Your task to perform on an android device: toggle priority inbox in the gmail app Image 0: 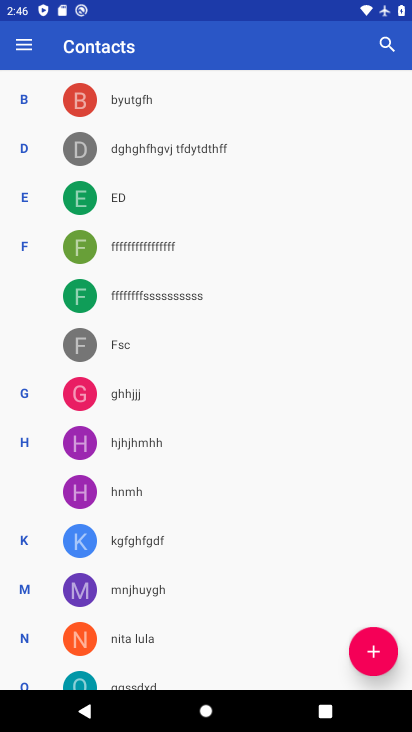
Step 0: press home button
Your task to perform on an android device: toggle priority inbox in the gmail app Image 1: 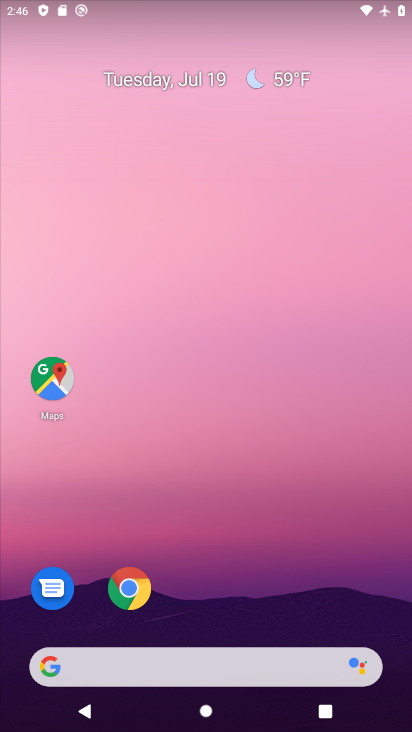
Step 1: drag from (226, 634) to (253, 180)
Your task to perform on an android device: toggle priority inbox in the gmail app Image 2: 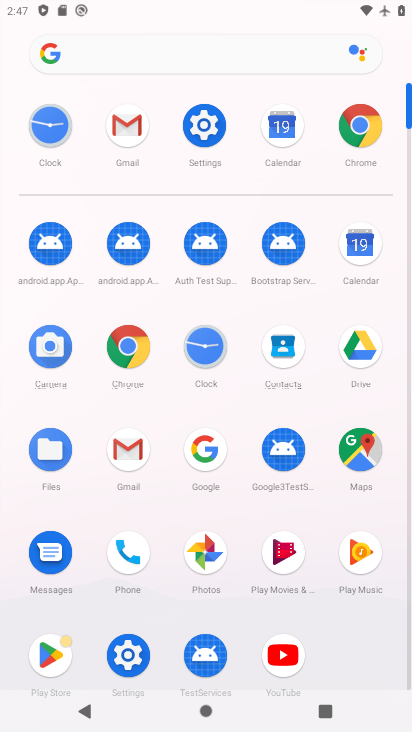
Step 2: click (133, 135)
Your task to perform on an android device: toggle priority inbox in the gmail app Image 3: 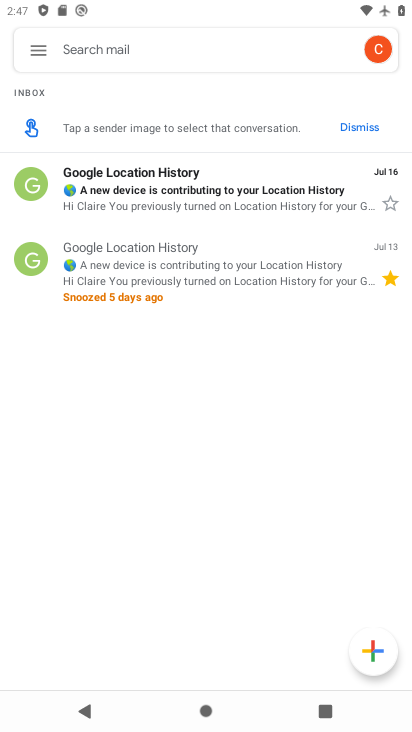
Step 3: drag from (31, 58) to (102, 368)
Your task to perform on an android device: toggle priority inbox in the gmail app Image 4: 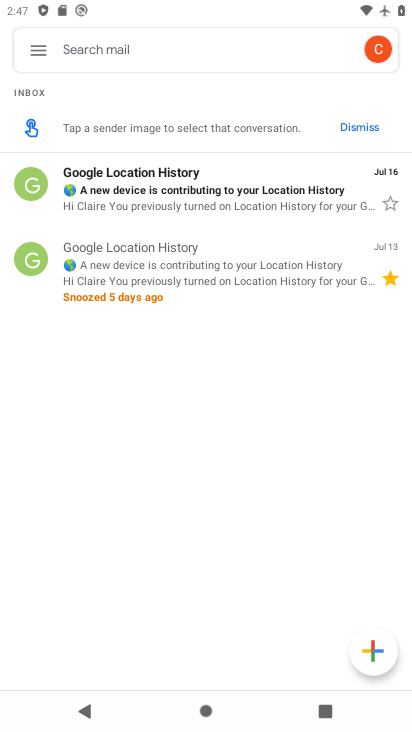
Step 4: click (38, 52)
Your task to perform on an android device: toggle priority inbox in the gmail app Image 5: 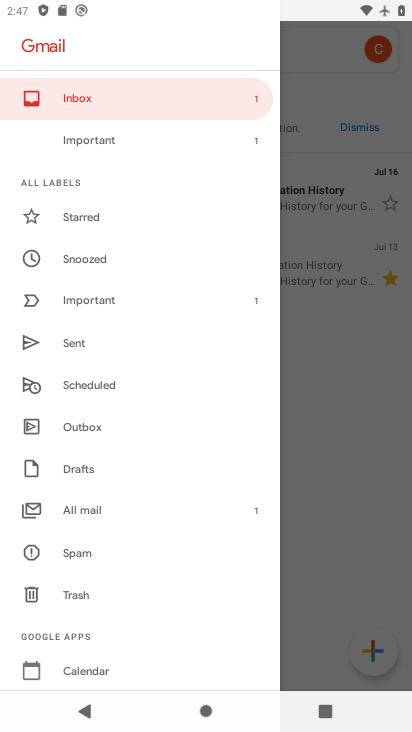
Step 5: drag from (126, 625) to (89, 307)
Your task to perform on an android device: toggle priority inbox in the gmail app Image 6: 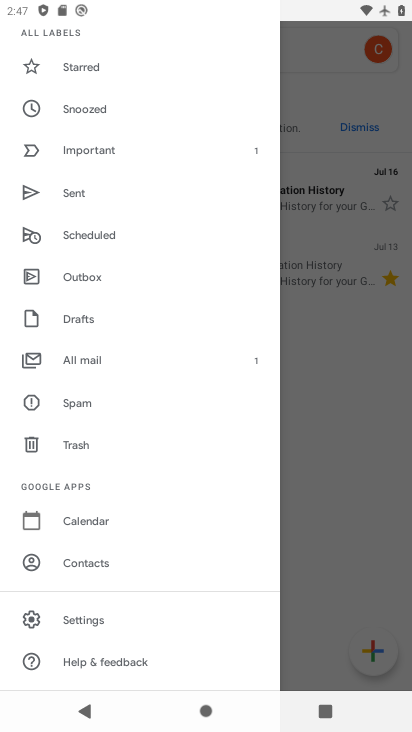
Step 6: click (83, 618)
Your task to perform on an android device: toggle priority inbox in the gmail app Image 7: 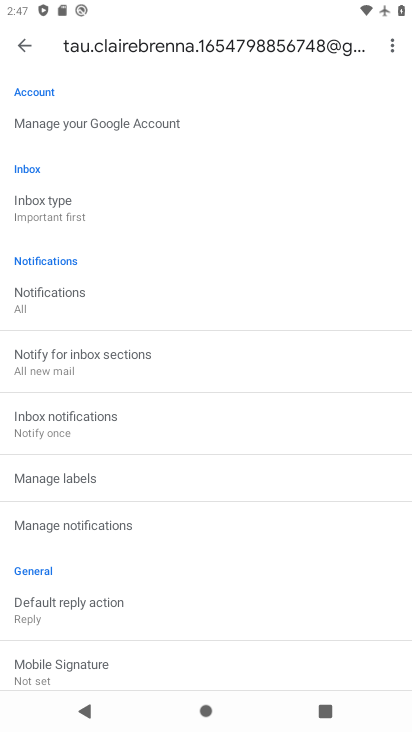
Step 7: click (45, 213)
Your task to perform on an android device: toggle priority inbox in the gmail app Image 8: 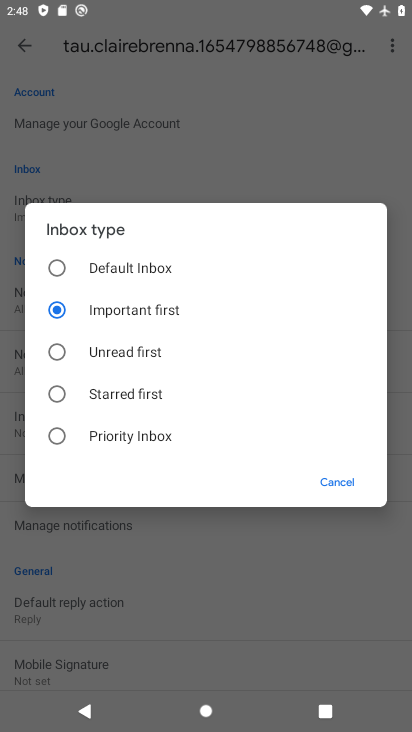
Step 8: click (63, 435)
Your task to perform on an android device: toggle priority inbox in the gmail app Image 9: 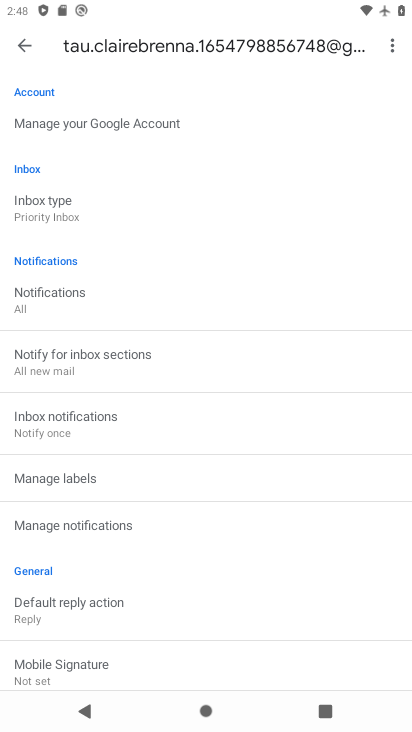
Step 9: task complete